Your task to perform on an android device: turn off javascript in the chrome app Image 0: 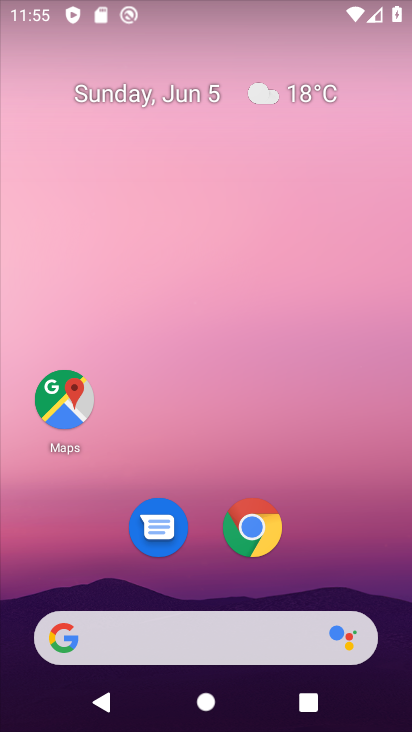
Step 0: click (239, 527)
Your task to perform on an android device: turn off javascript in the chrome app Image 1: 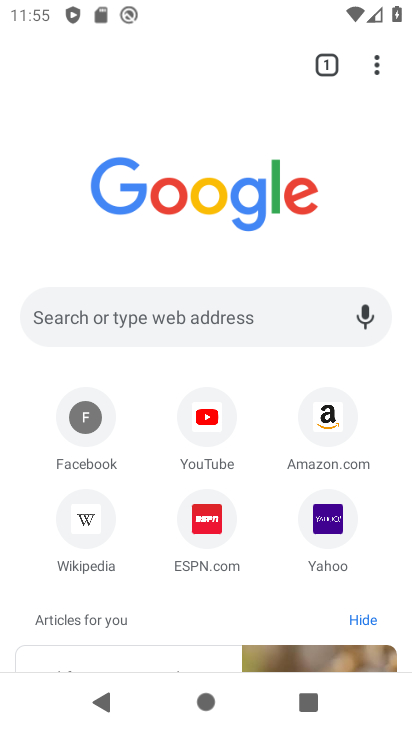
Step 1: drag from (377, 63) to (124, 532)
Your task to perform on an android device: turn off javascript in the chrome app Image 2: 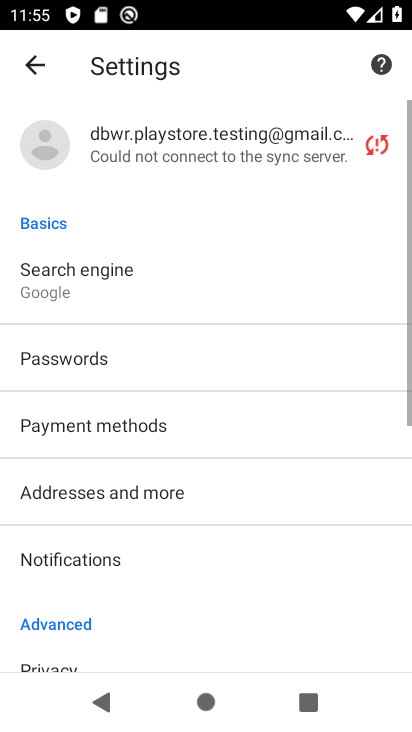
Step 2: drag from (124, 527) to (78, 4)
Your task to perform on an android device: turn off javascript in the chrome app Image 3: 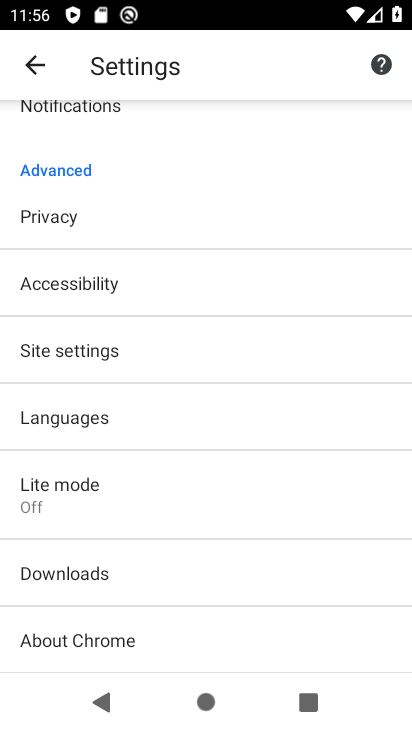
Step 3: click (72, 332)
Your task to perform on an android device: turn off javascript in the chrome app Image 4: 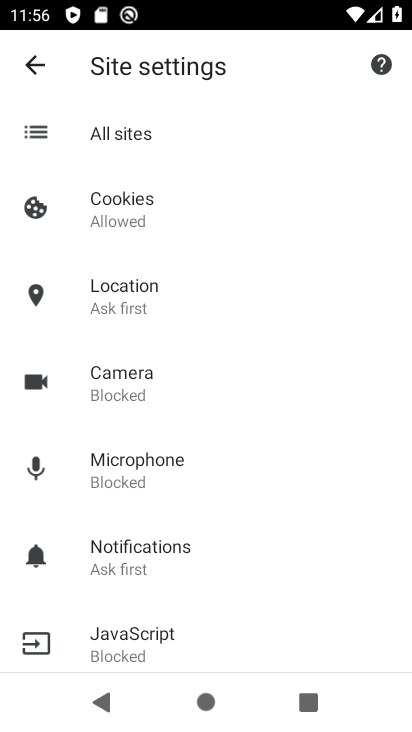
Step 4: drag from (156, 524) to (125, 233)
Your task to perform on an android device: turn off javascript in the chrome app Image 5: 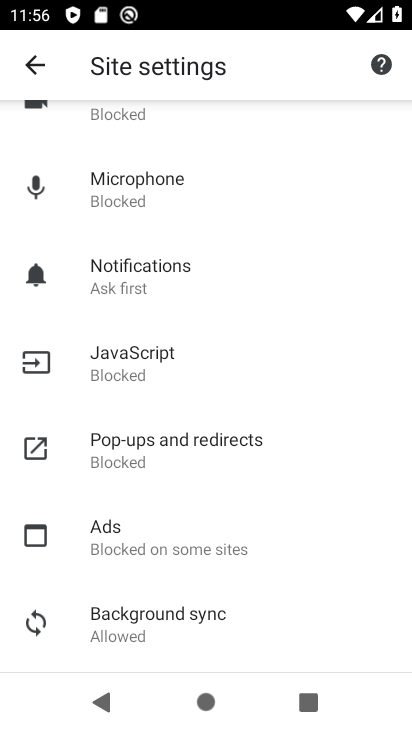
Step 5: click (128, 367)
Your task to perform on an android device: turn off javascript in the chrome app Image 6: 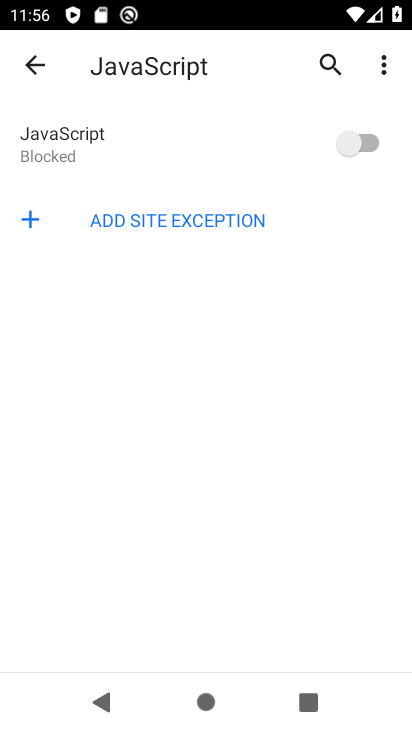
Step 6: task complete